Your task to perform on an android device: Open Chrome and go to the settings page Image 0: 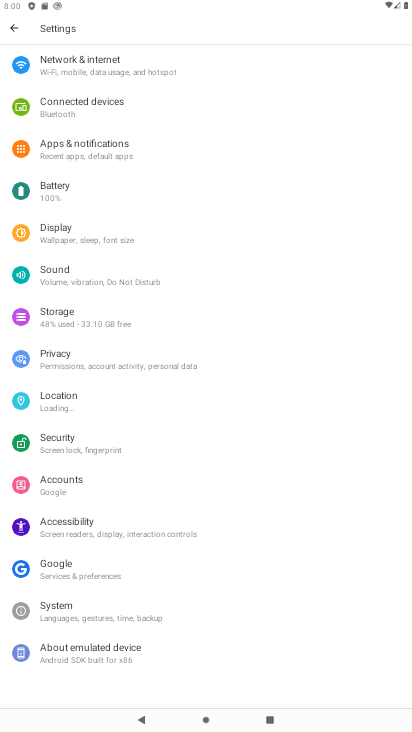
Step 0: press home button
Your task to perform on an android device: Open Chrome and go to the settings page Image 1: 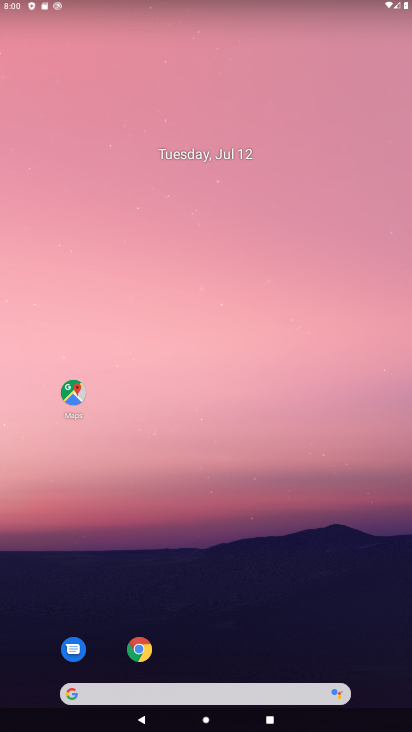
Step 1: drag from (215, 649) to (246, 181)
Your task to perform on an android device: Open Chrome and go to the settings page Image 2: 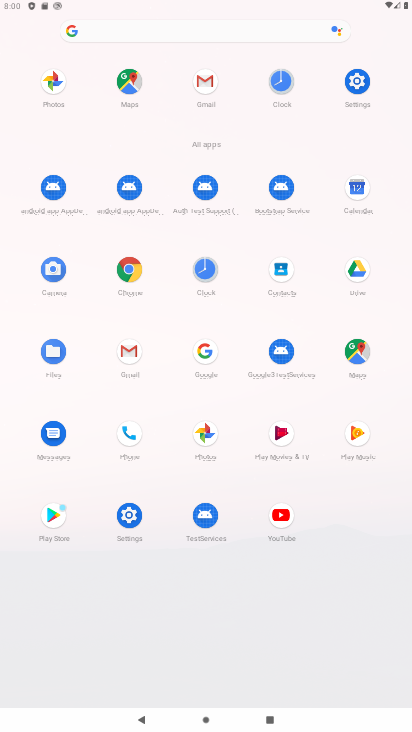
Step 2: click (127, 268)
Your task to perform on an android device: Open Chrome and go to the settings page Image 3: 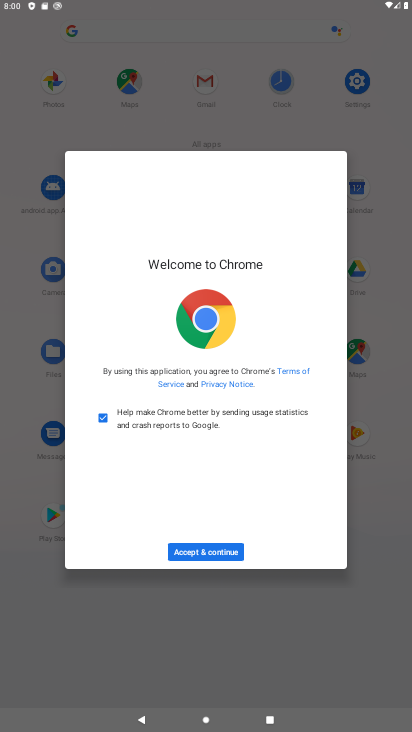
Step 3: click (196, 545)
Your task to perform on an android device: Open Chrome and go to the settings page Image 4: 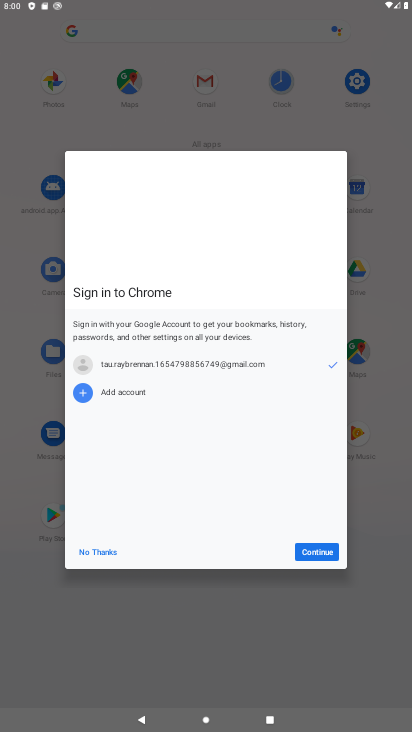
Step 4: click (324, 552)
Your task to perform on an android device: Open Chrome and go to the settings page Image 5: 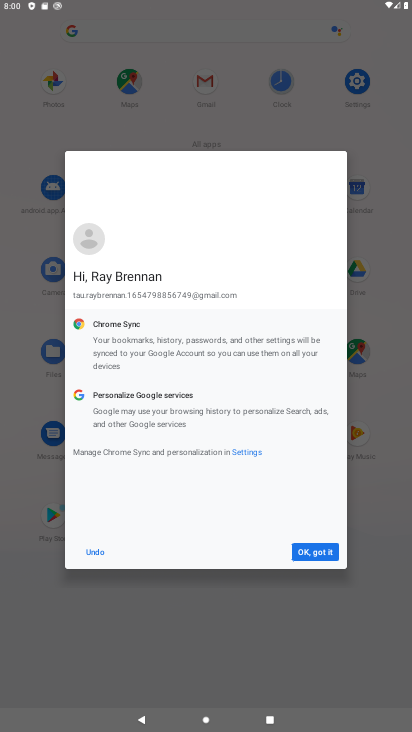
Step 5: click (324, 552)
Your task to perform on an android device: Open Chrome and go to the settings page Image 6: 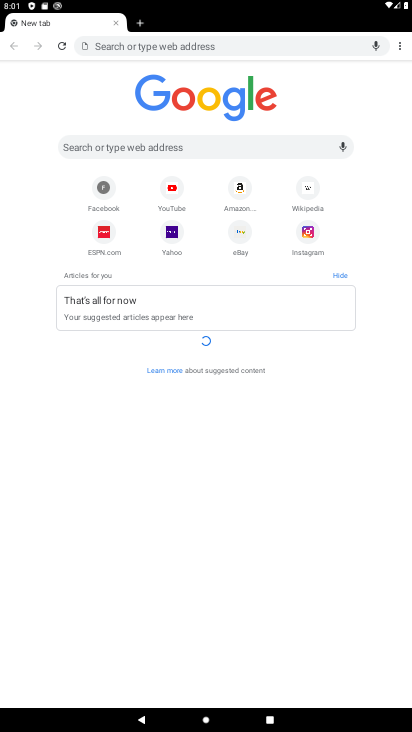
Step 6: click (397, 51)
Your task to perform on an android device: Open Chrome and go to the settings page Image 7: 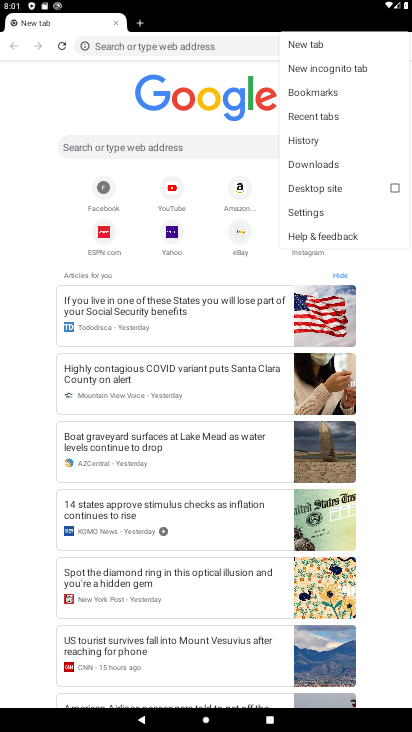
Step 7: click (327, 209)
Your task to perform on an android device: Open Chrome and go to the settings page Image 8: 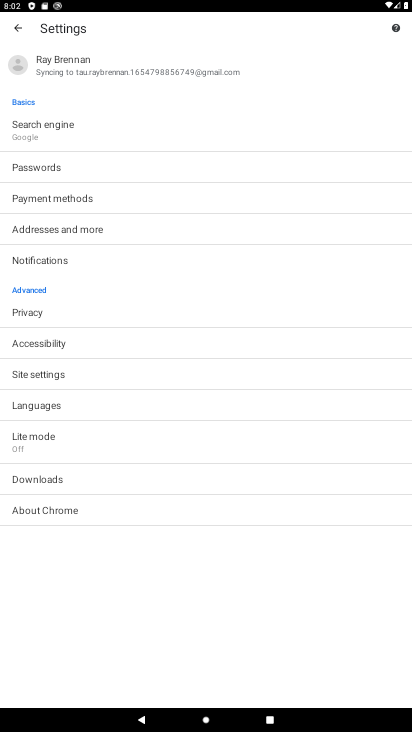
Step 8: task complete